Your task to perform on an android device: turn pop-ups off in chrome Image 0: 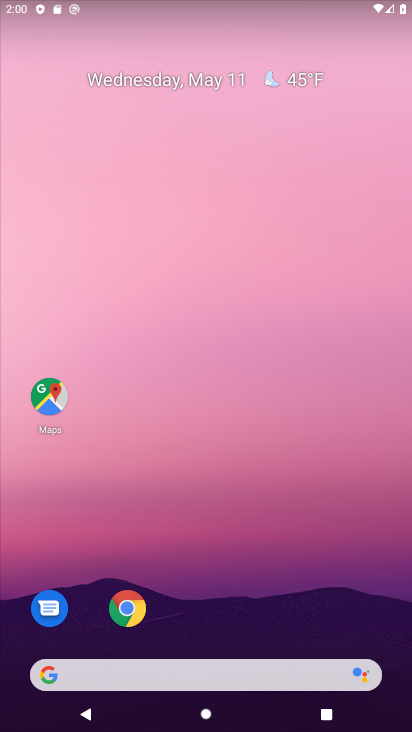
Step 0: click (132, 621)
Your task to perform on an android device: turn pop-ups off in chrome Image 1: 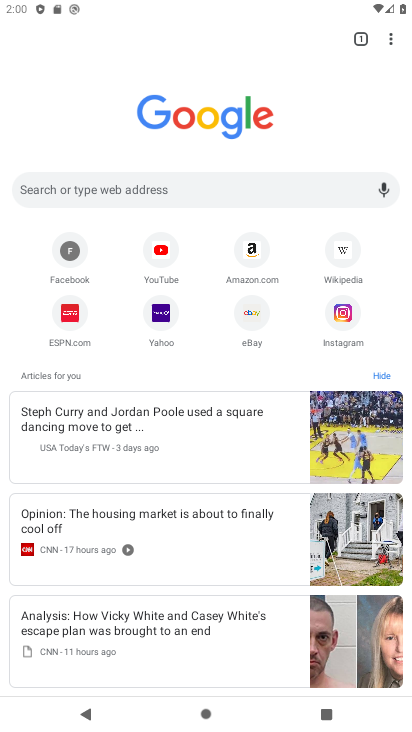
Step 1: drag from (389, 41) to (302, 331)
Your task to perform on an android device: turn pop-ups off in chrome Image 2: 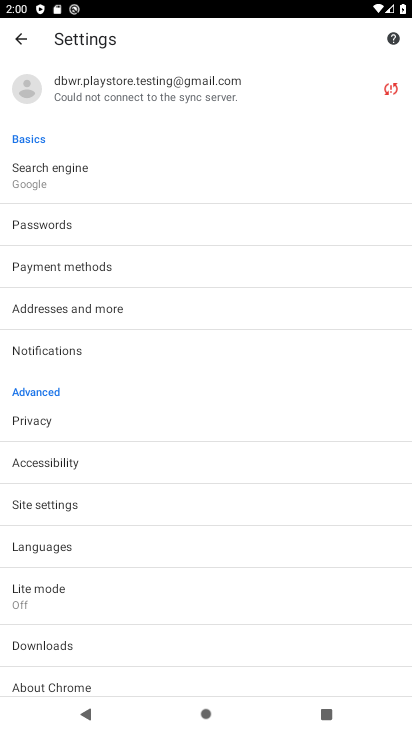
Step 2: click (95, 500)
Your task to perform on an android device: turn pop-ups off in chrome Image 3: 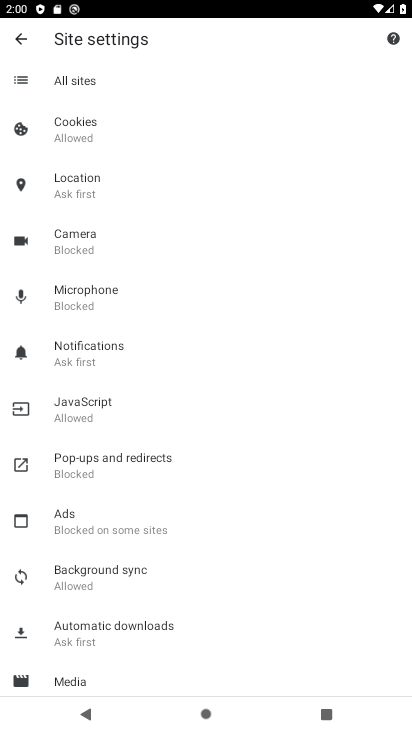
Step 3: click (126, 465)
Your task to perform on an android device: turn pop-ups off in chrome Image 4: 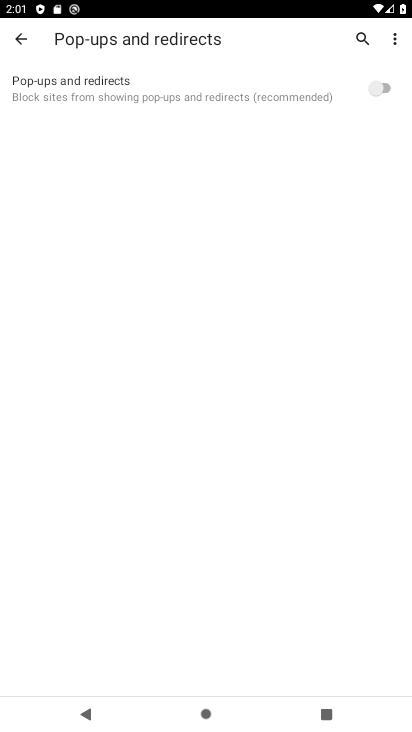
Step 4: task complete